Your task to perform on an android device: turn off javascript in the chrome app Image 0: 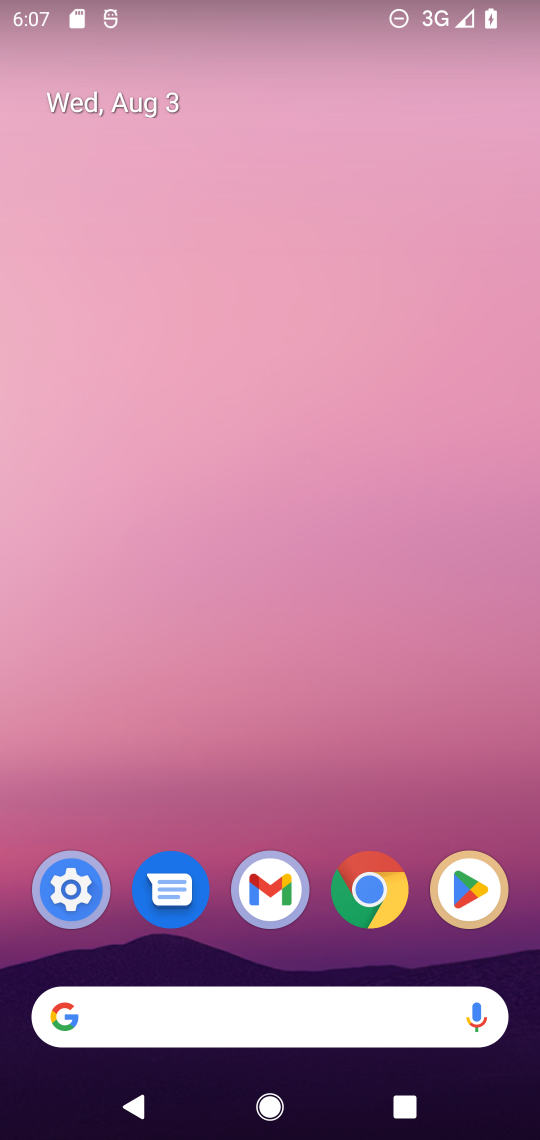
Step 0: click (370, 897)
Your task to perform on an android device: turn off javascript in the chrome app Image 1: 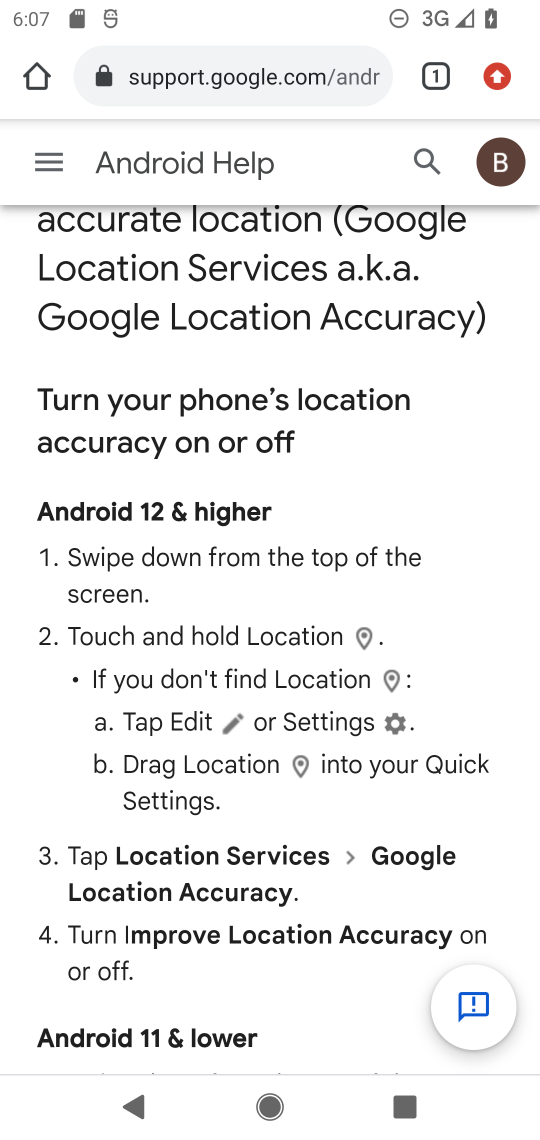
Step 1: click (493, 72)
Your task to perform on an android device: turn off javascript in the chrome app Image 2: 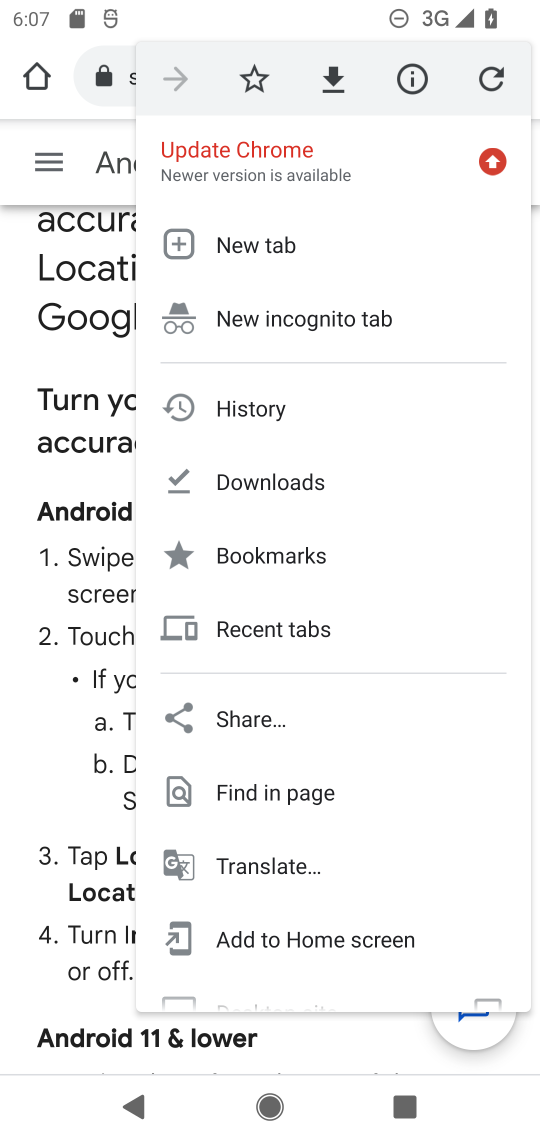
Step 2: drag from (325, 814) to (344, 291)
Your task to perform on an android device: turn off javascript in the chrome app Image 3: 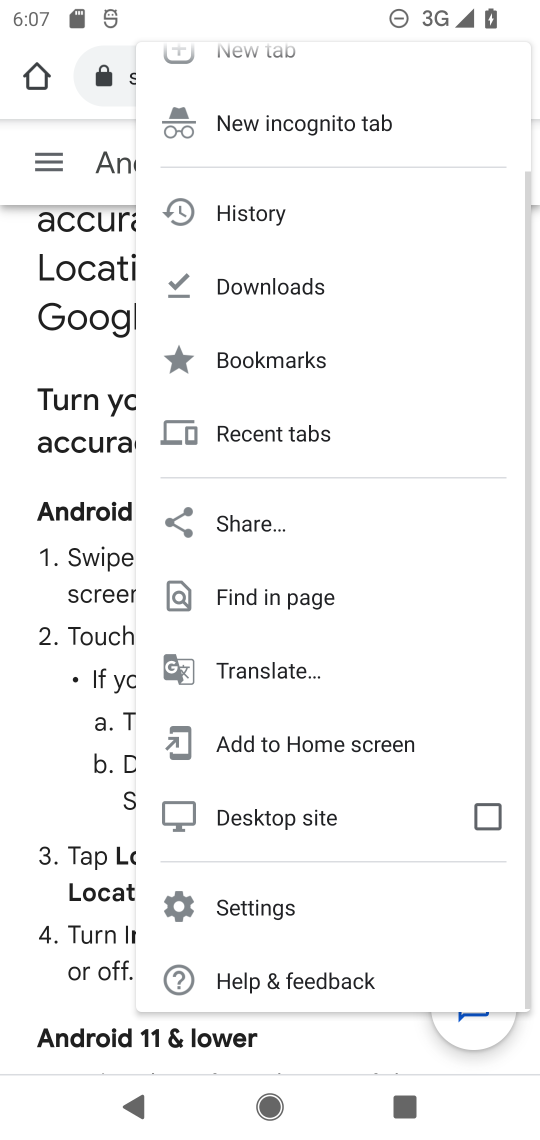
Step 3: click (241, 902)
Your task to perform on an android device: turn off javascript in the chrome app Image 4: 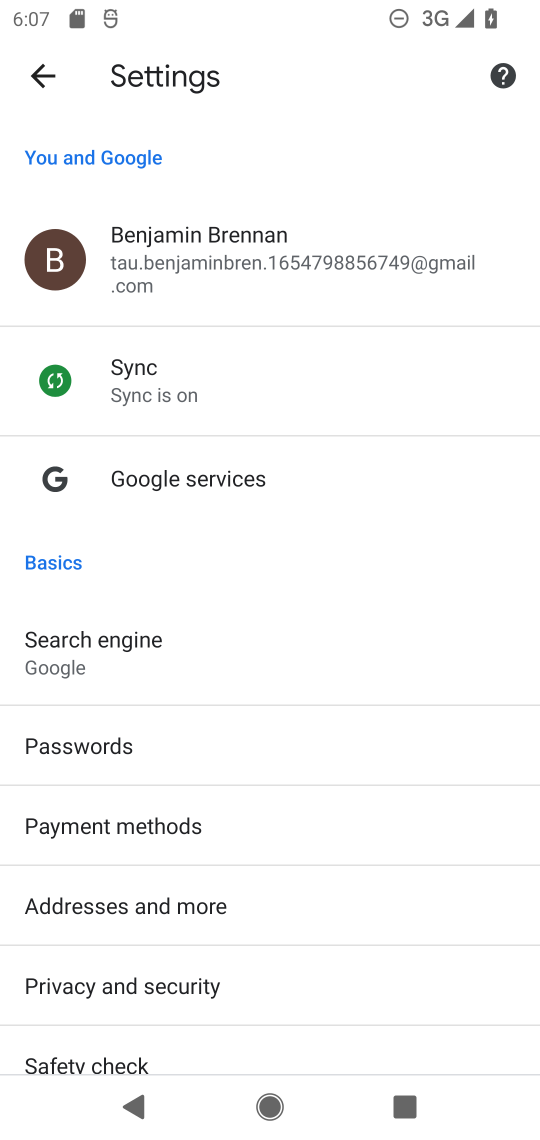
Step 4: drag from (299, 978) to (357, 181)
Your task to perform on an android device: turn off javascript in the chrome app Image 5: 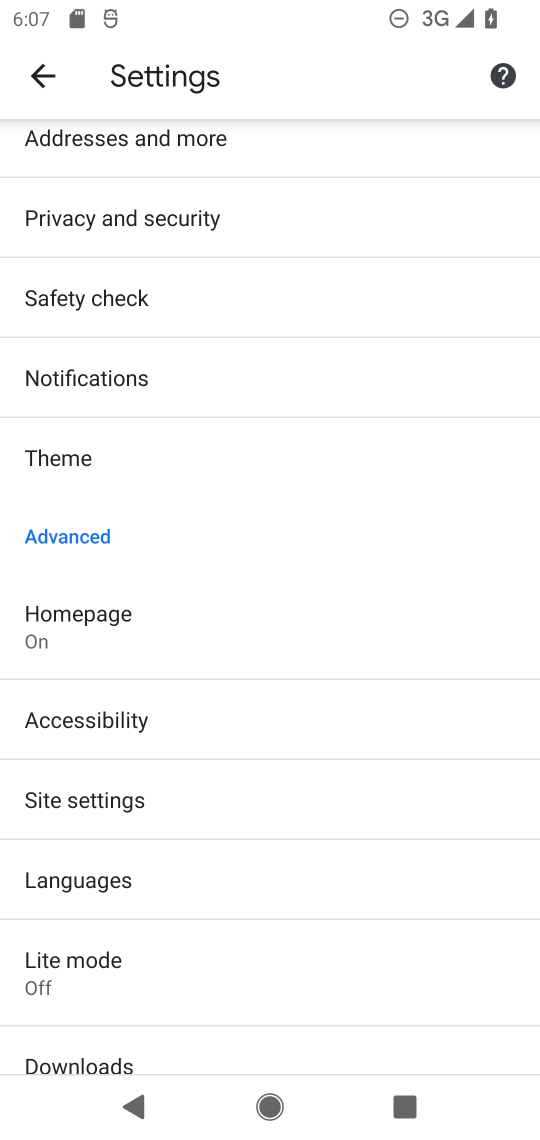
Step 5: click (121, 792)
Your task to perform on an android device: turn off javascript in the chrome app Image 6: 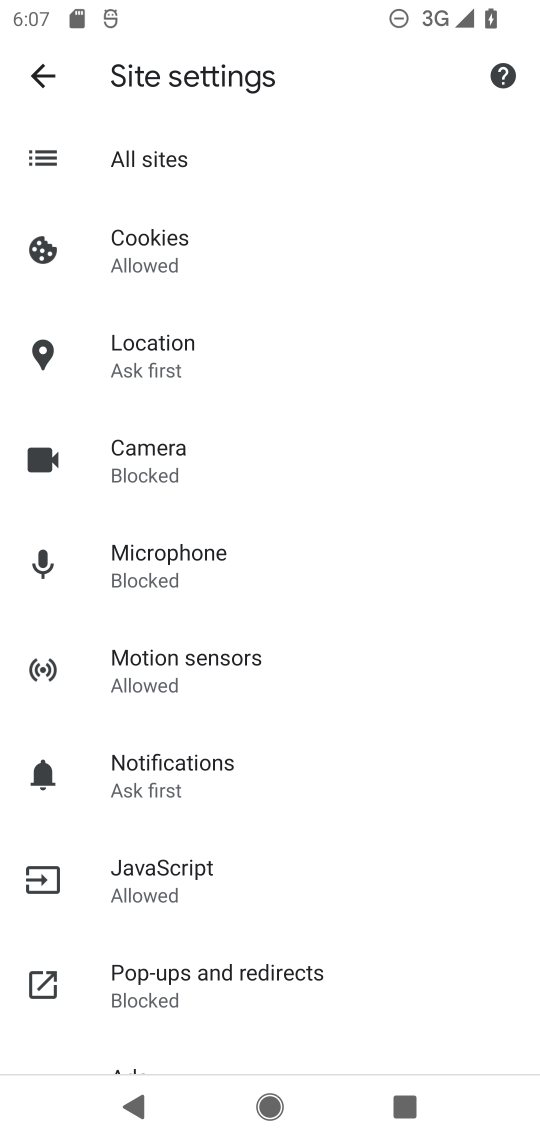
Step 6: click (207, 887)
Your task to perform on an android device: turn off javascript in the chrome app Image 7: 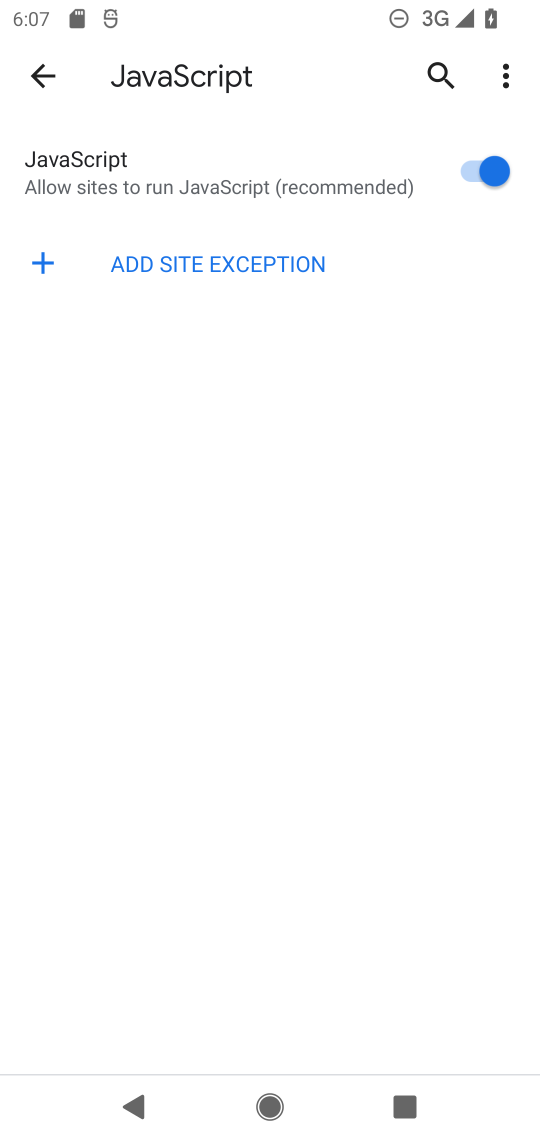
Step 7: click (475, 171)
Your task to perform on an android device: turn off javascript in the chrome app Image 8: 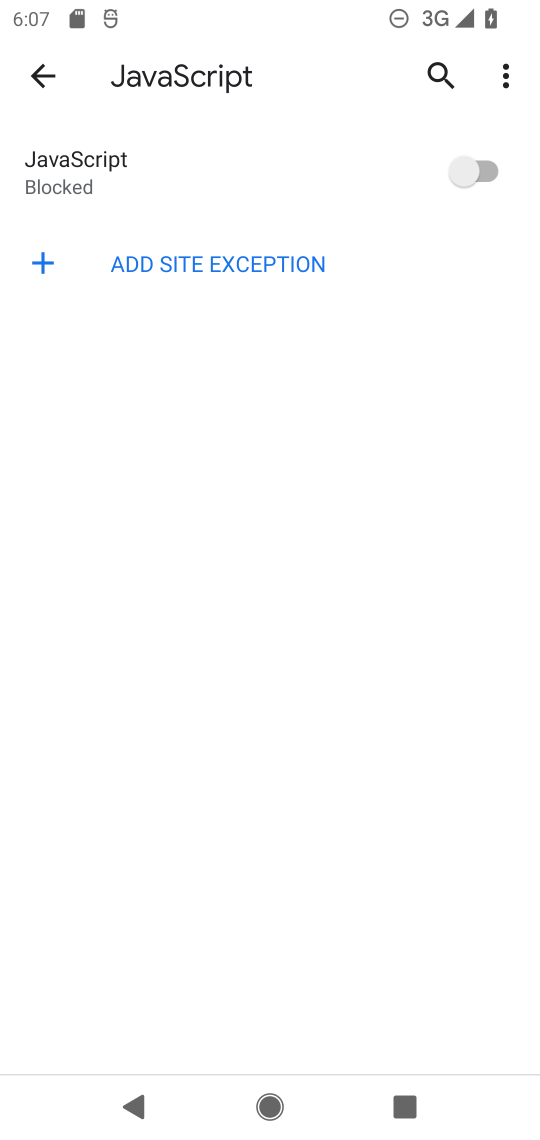
Step 8: task complete